Your task to perform on an android device: open chrome and create a bookmark for the current page Image 0: 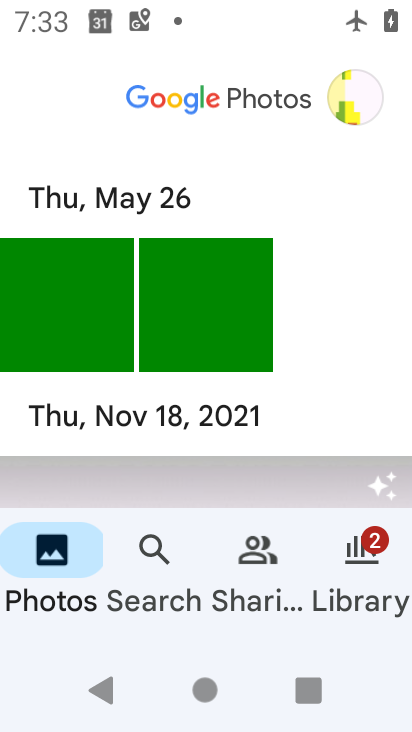
Step 0: click (409, 183)
Your task to perform on an android device: open chrome and create a bookmark for the current page Image 1: 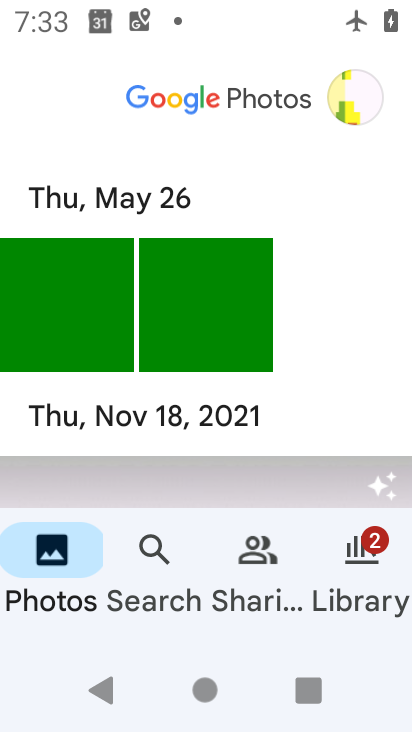
Step 1: press home button
Your task to perform on an android device: open chrome and create a bookmark for the current page Image 2: 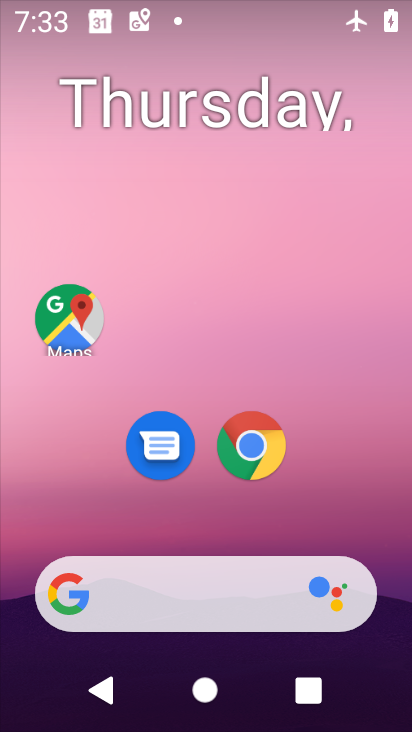
Step 2: click (360, 514)
Your task to perform on an android device: open chrome and create a bookmark for the current page Image 3: 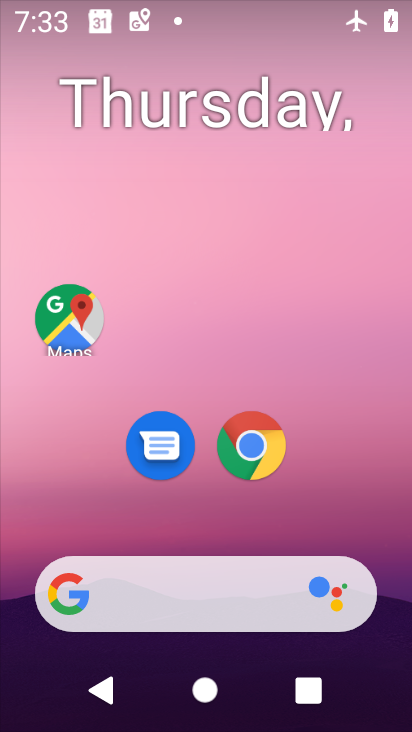
Step 3: drag from (366, 338) to (383, 13)
Your task to perform on an android device: open chrome and create a bookmark for the current page Image 4: 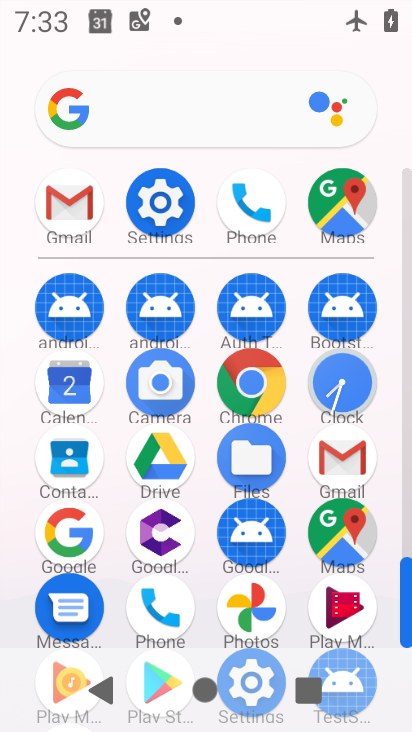
Step 4: click (266, 378)
Your task to perform on an android device: open chrome and create a bookmark for the current page Image 5: 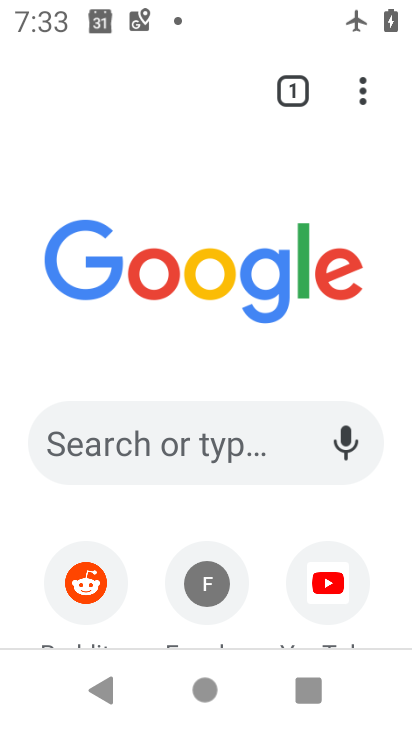
Step 5: click (363, 84)
Your task to perform on an android device: open chrome and create a bookmark for the current page Image 6: 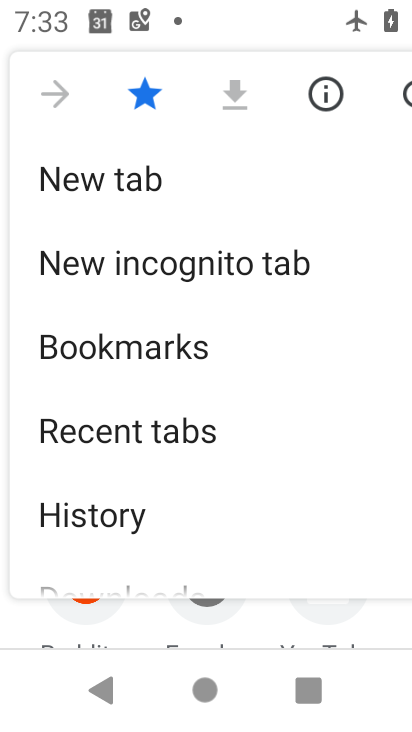
Step 6: task complete